Your task to perform on an android device: Open calendar and show me the fourth week of next month Image 0: 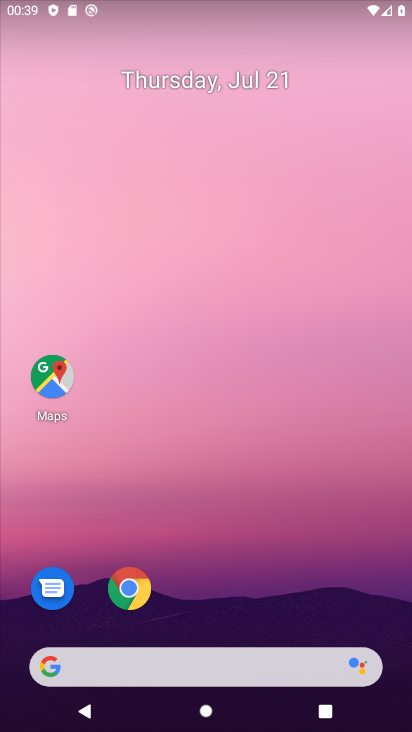
Step 0: drag from (258, 552) to (240, 189)
Your task to perform on an android device: Open calendar and show me the fourth week of next month Image 1: 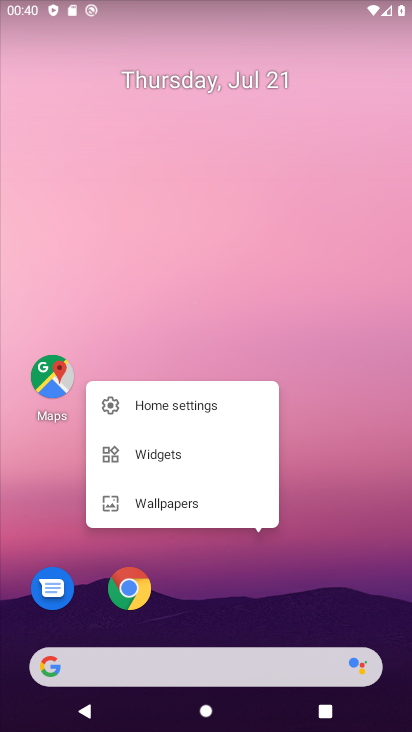
Step 1: click (351, 614)
Your task to perform on an android device: Open calendar and show me the fourth week of next month Image 2: 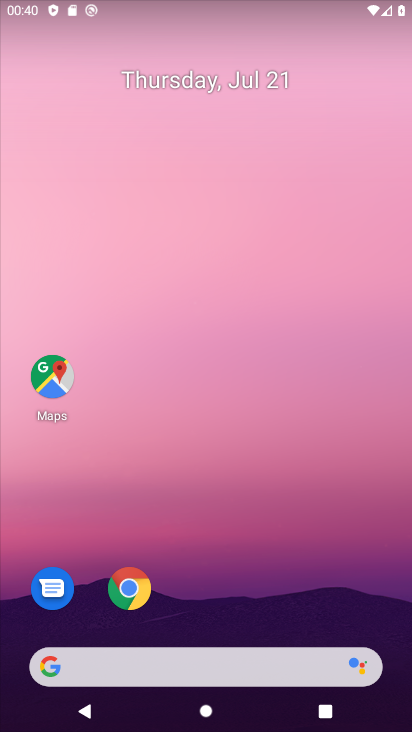
Step 2: drag from (351, 614) to (325, 135)
Your task to perform on an android device: Open calendar and show me the fourth week of next month Image 3: 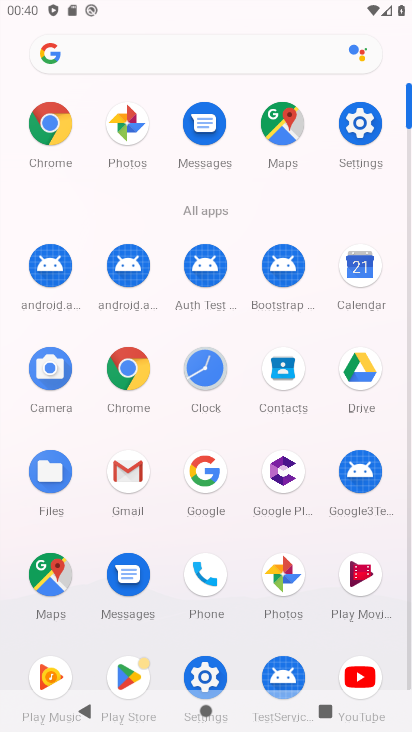
Step 3: click (364, 263)
Your task to perform on an android device: Open calendar and show me the fourth week of next month Image 4: 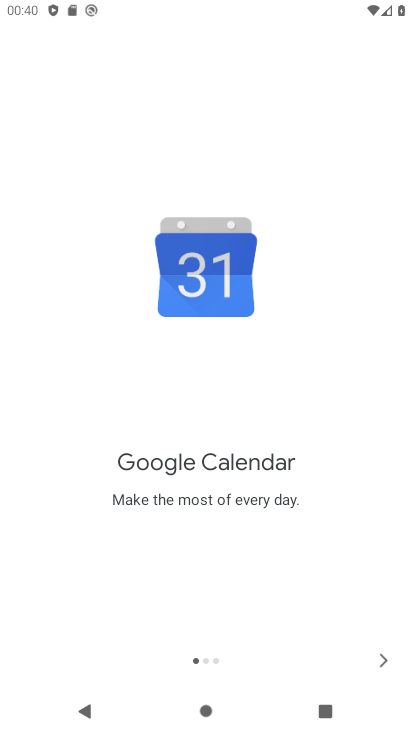
Step 4: click (380, 652)
Your task to perform on an android device: Open calendar and show me the fourth week of next month Image 5: 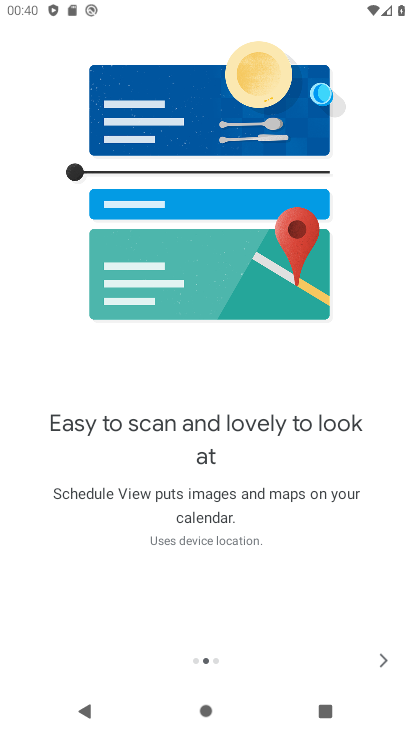
Step 5: click (380, 652)
Your task to perform on an android device: Open calendar and show me the fourth week of next month Image 6: 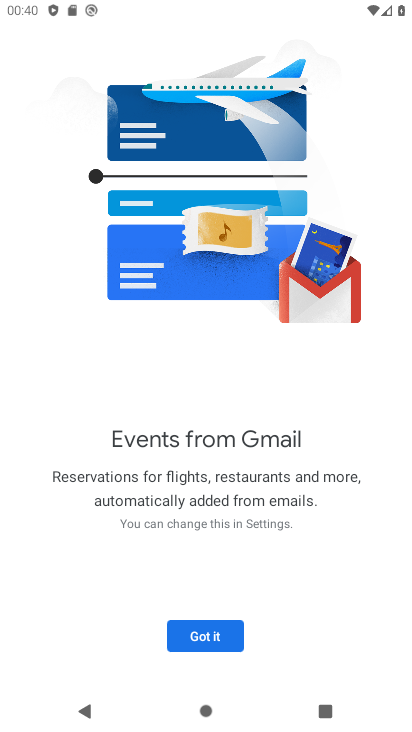
Step 6: click (232, 635)
Your task to perform on an android device: Open calendar and show me the fourth week of next month Image 7: 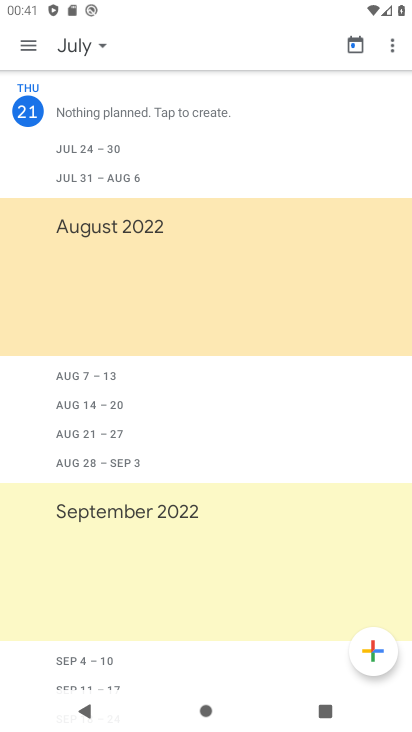
Step 7: click (86, 48)
Your task to perform on an android device: Open calendar and show me the fourth week of next month Image 8: 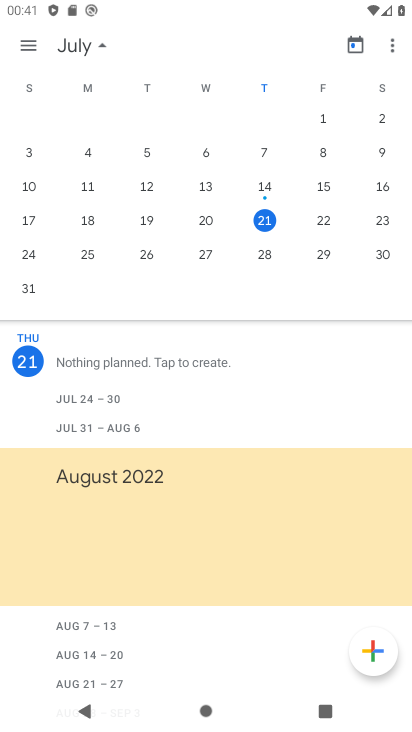
Step 8: drag from (303, 208) to (7, 246)
Your task to perform on an android device: Open calendar and show me the fourth week of next month Image 9: 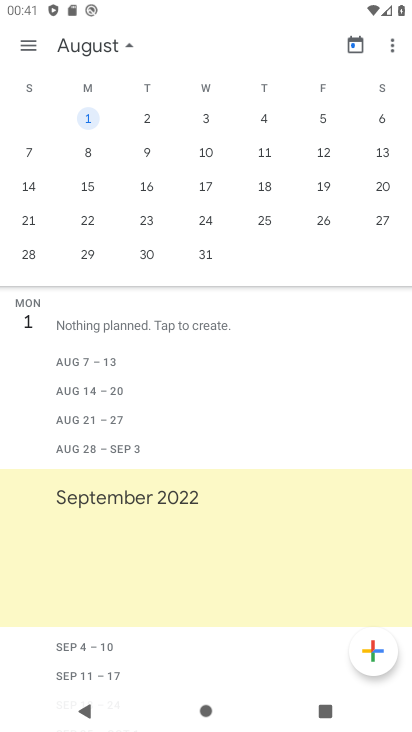
Step 9: click (86, 226)
Your task to perform on an android device: Open calendar and show me the fourth week of next month Image 10: 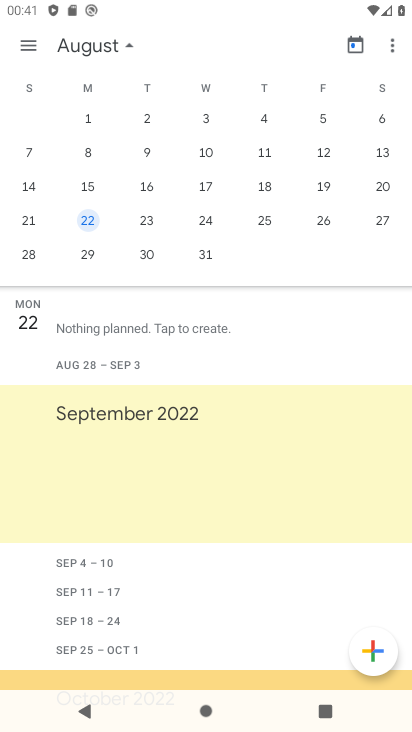
Step 10: task complete